Your task to perform on an android device: Open the web browser Image 0: 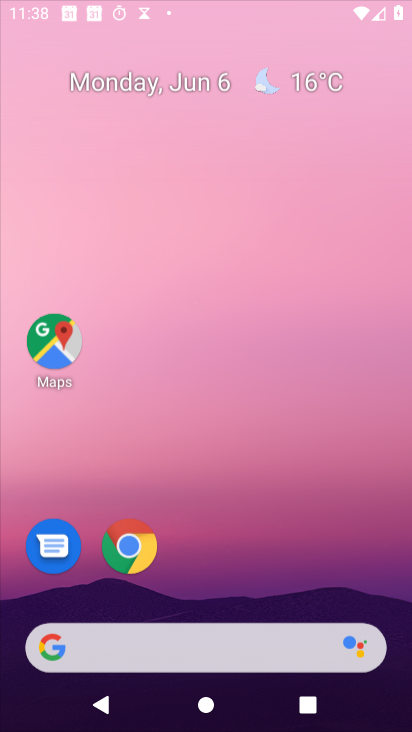
Step 0: click (311, 383)
Your task to perform on an android device: Open the web browser Image 1: 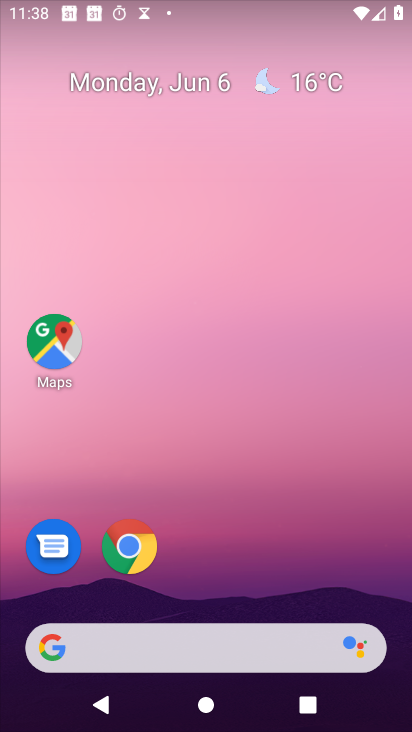
Step 1: click (139, 550)
Your task to perform on an android device: Open the web browser Image 2: 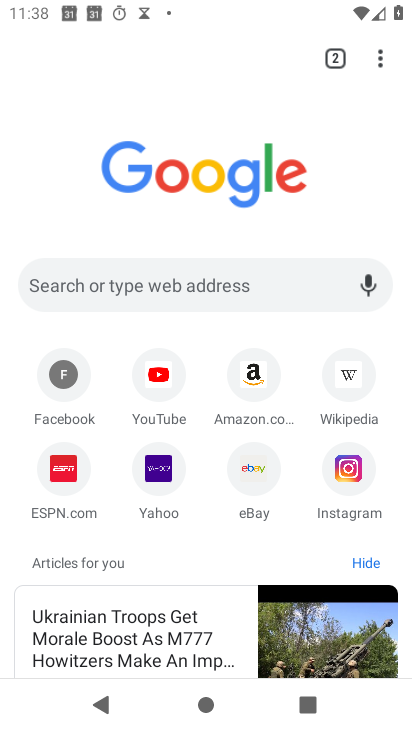
Step 2: task complete